Your task to perform on an android device: toggle sleep mode Image 0: 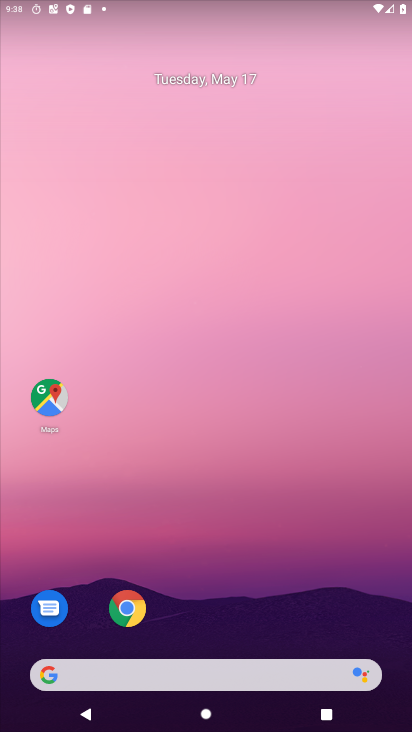
Step 0: drag from (296, 568) to (314, 257)
Your task to perform on an android device: toggle sleep mode Image 1: 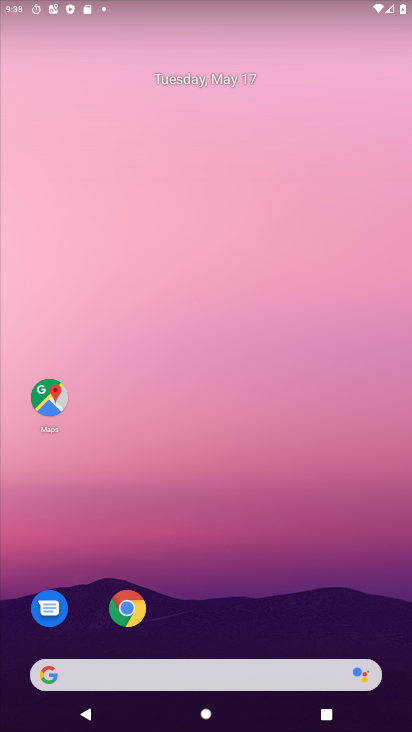
Step 1: drag from (290, 579) to (307, 284)
Your task to perform on an android device: toggle sleep mode Image 2: 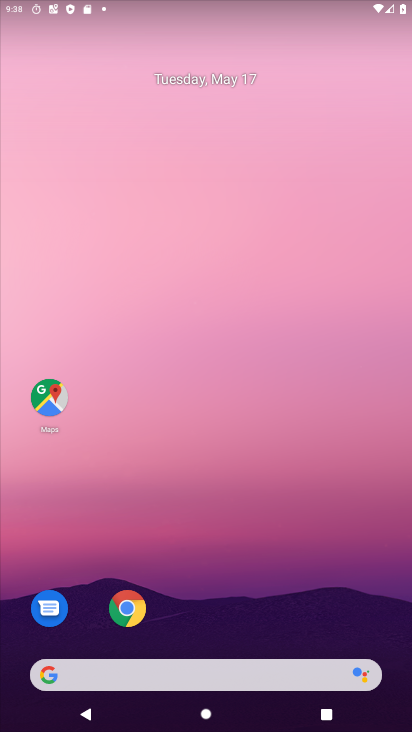
Step 2: drag from (325, 581) to (320, 123)
Your task to perform on an android device: toggle sleep mode Image 3: 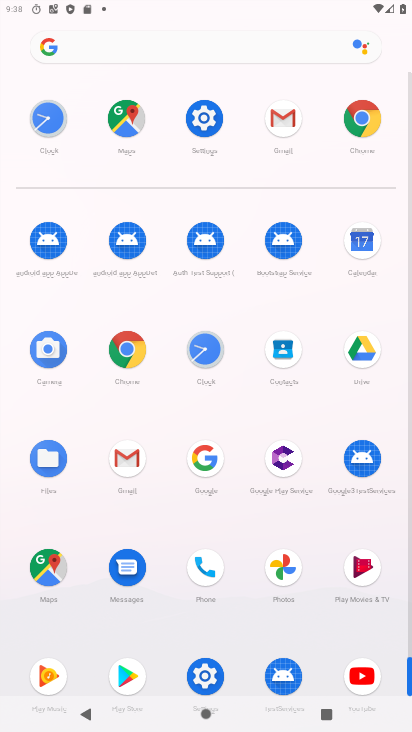
Step 3: click (199, 113)
Your task to perform on an android device: toggle sleep mode Image 4: 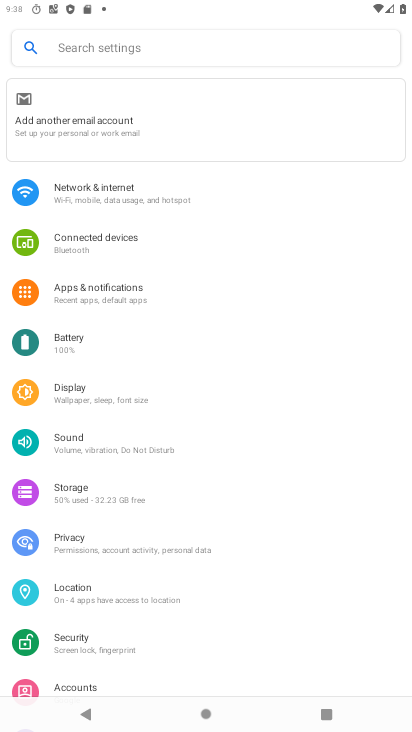
Step 4: click (212, 47)
Your task to perform on an android device: toggle sleep mode Image 5: 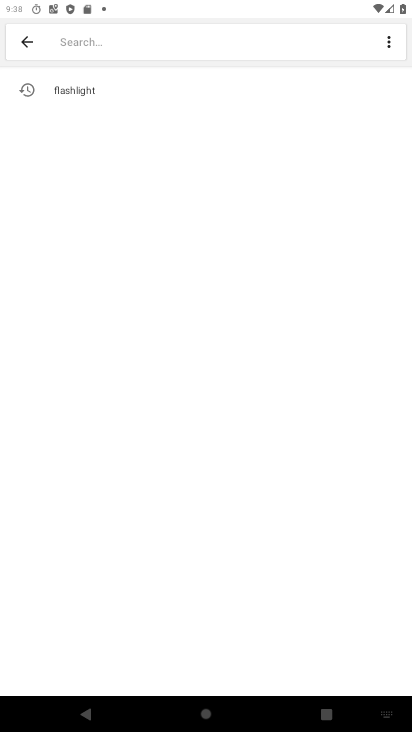
Step 5: type "sleep mode"
Your task to perform on an android device: toggle sleep mode Image 6: 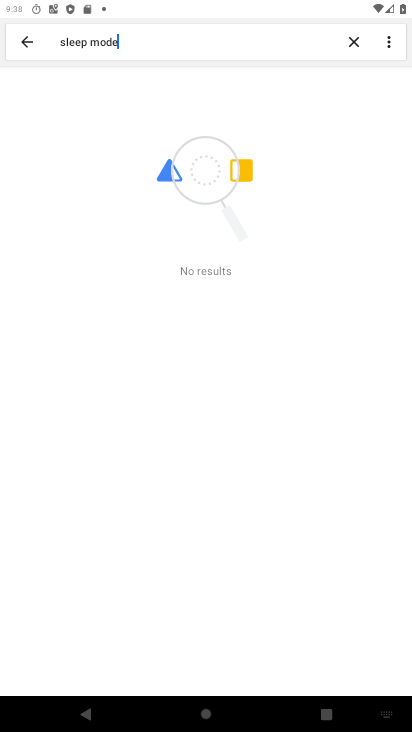
Step 6: task complete